Your task to perform on an android device: Show me the top rated dinnerware on Crate & Barrel Image 0: 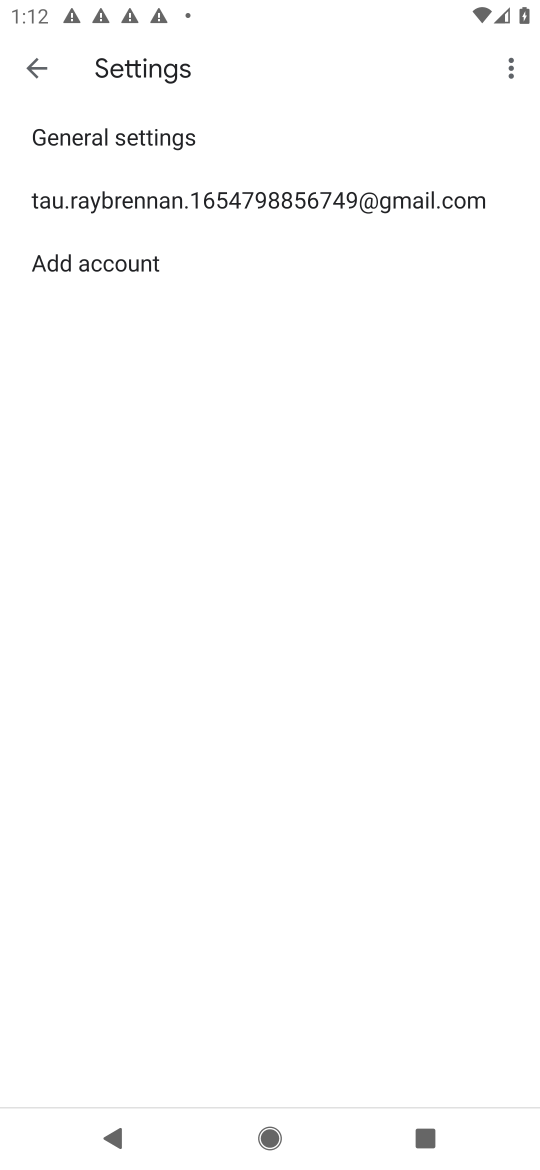
Step 0: click (368, 3)
Your task to perform on an android device: Show me the top rated dinnerware on Crate & Barrel Image 1: 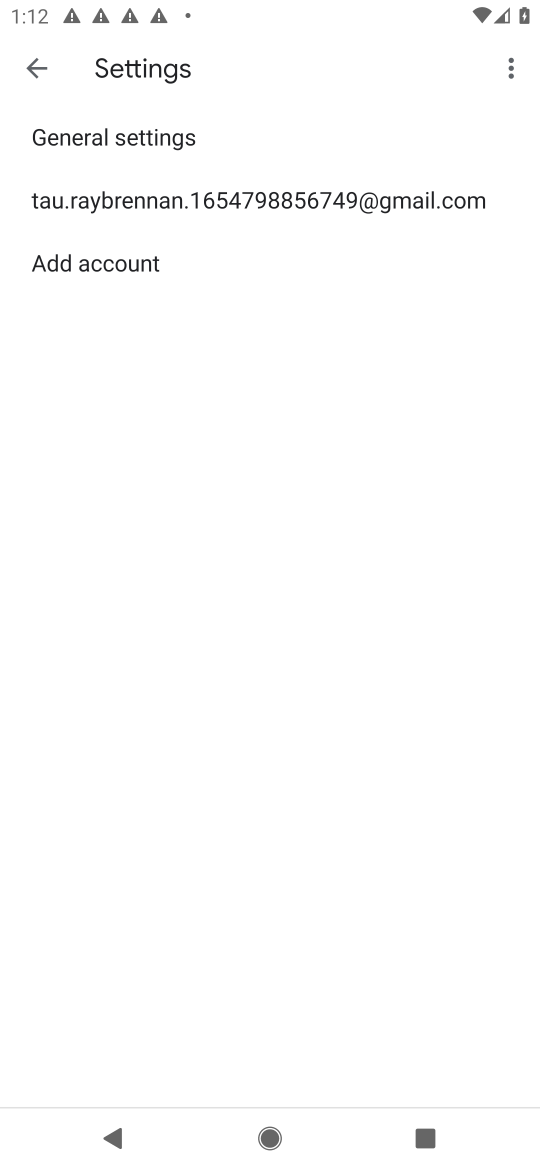
Step 1: press home button
Your task to perform on an android device: Show me the top rated dinnerware on Crate & Barrel Image 2: 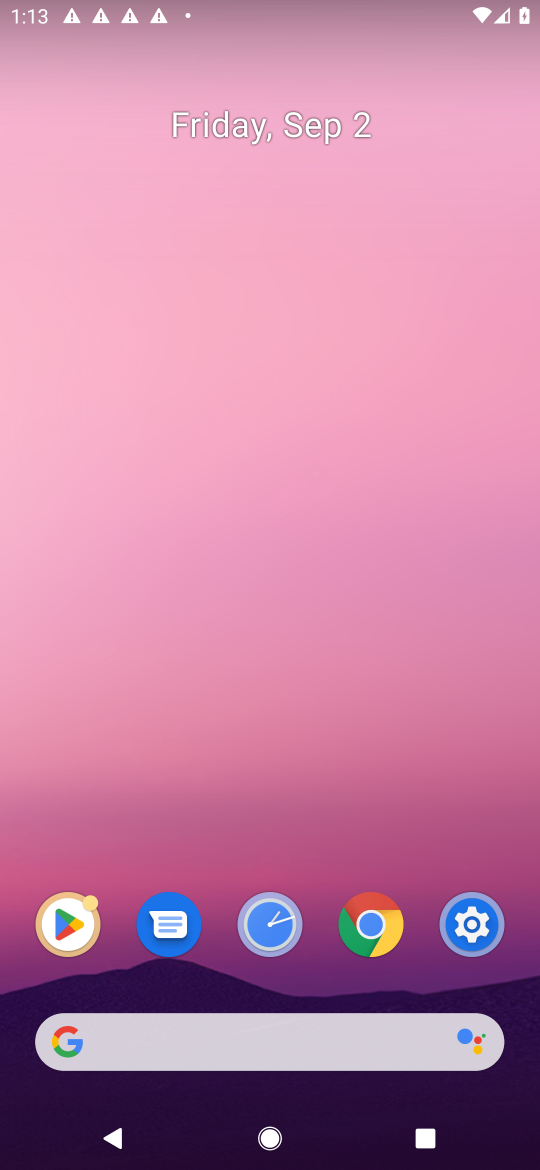
Step 2: click (294, 1039)
Your task to perform on an android device: Show me the top rated dinnerware on Crate & Barrel Image 3: 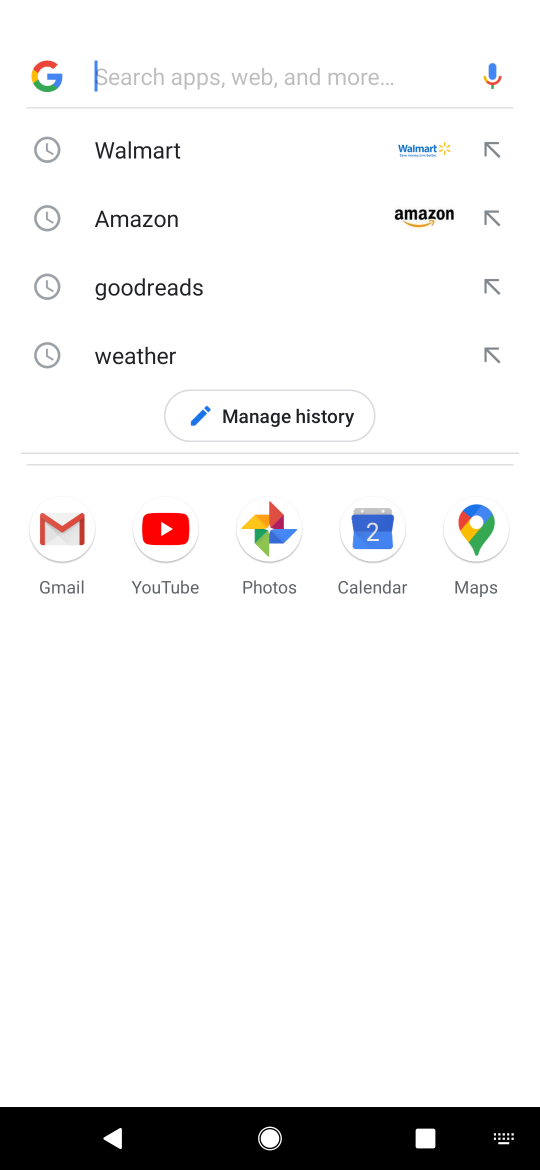
Step 3: type "Crate & Barrel"
Your task to perform on an android device: Show me the top rated dinnerware on Crate & Barrel Image 4: 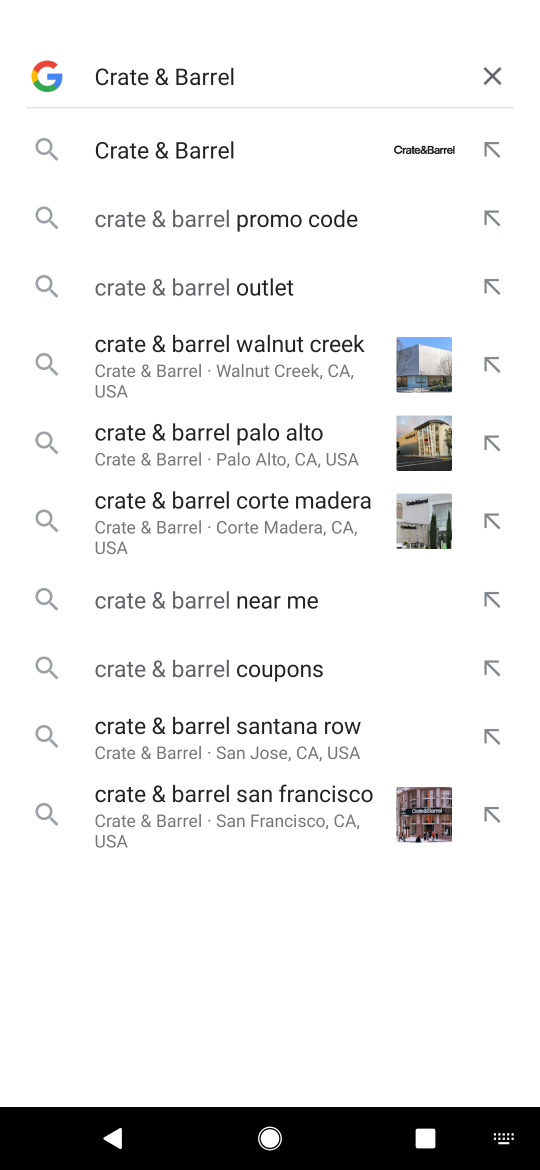
Step 4: type ""
Your task to perform on an android device: Show me the top rated dinnerware on Crate & Barrel Image 5: 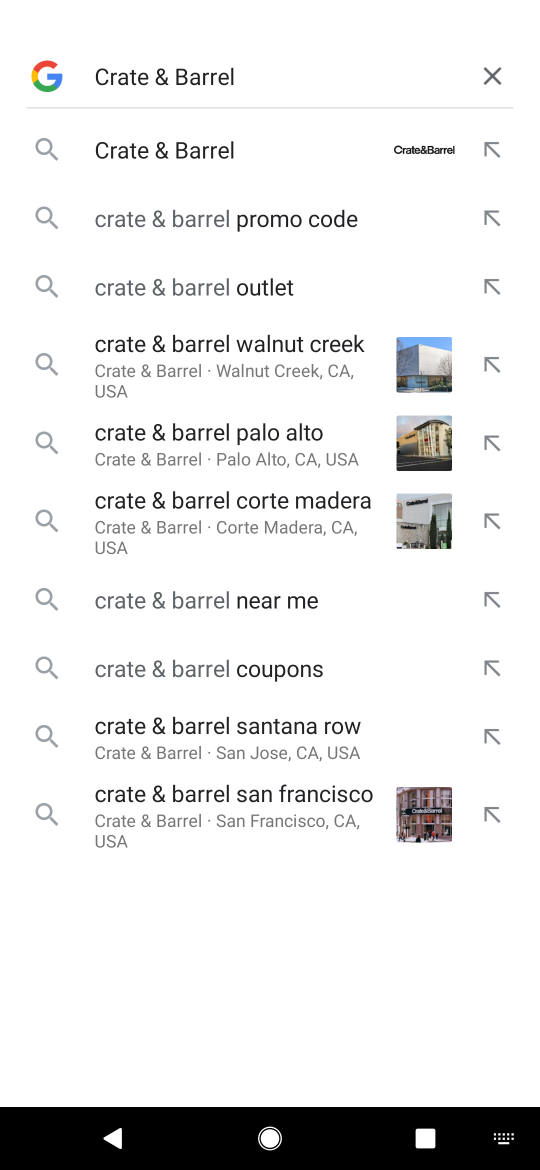
Step 5: click (182, 150)
Your task to perform on an android device: Show me the top rated dinnerware on Crate & Barrel Image 6: 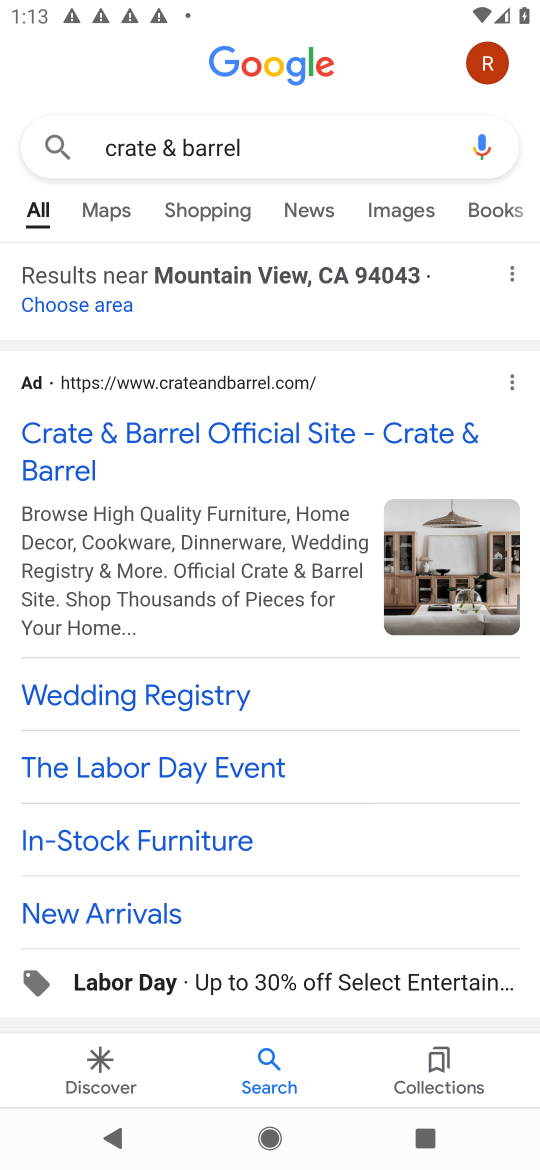
Step 6: drag from (249, 556) to (326, 319)
Your task to perform on an android device: Show me the top rated dinnerware on Crate & Barrel Image 7: 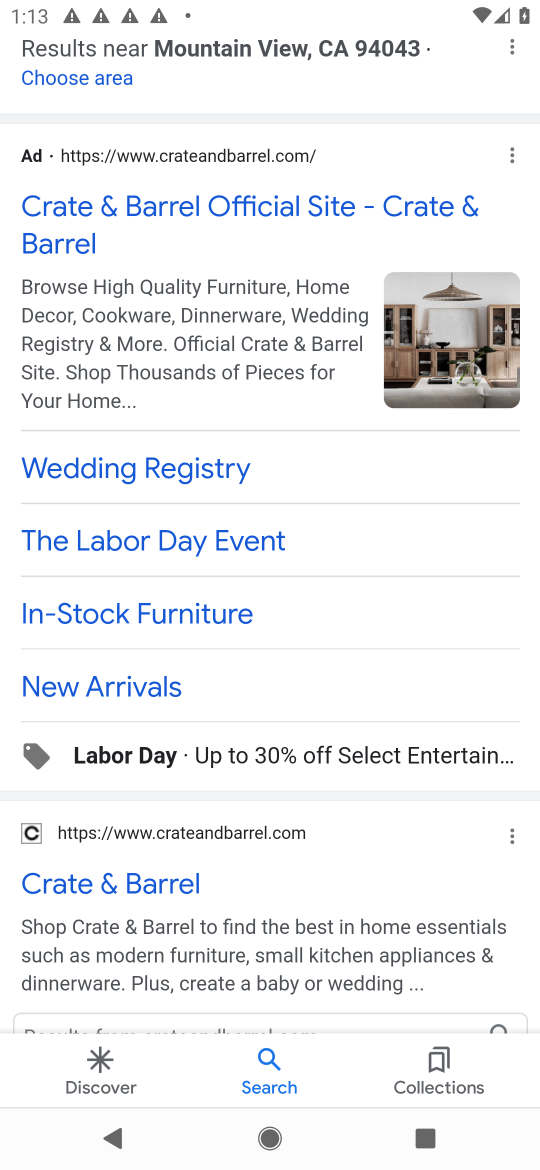
Step 7: click (176, 891)
Your task to perform on an android device: Show me the top rated dinnerware on Crate & Barrel Image 8: 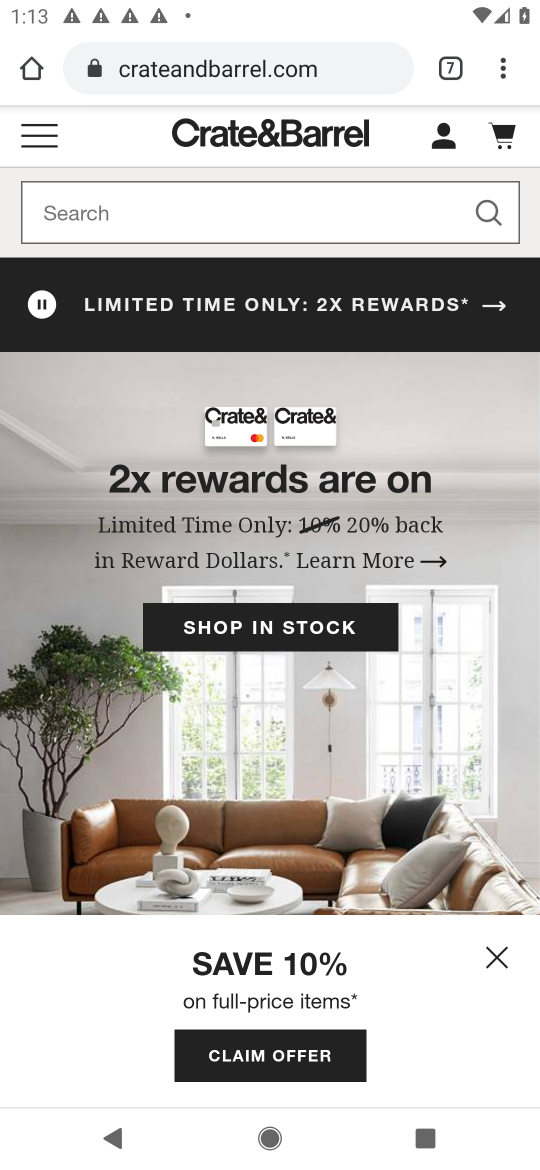
Step 8: click (238, 224)
Your task to perform on an android device: Show me the top rated dinnerware on Crate & Barrel Image 9: 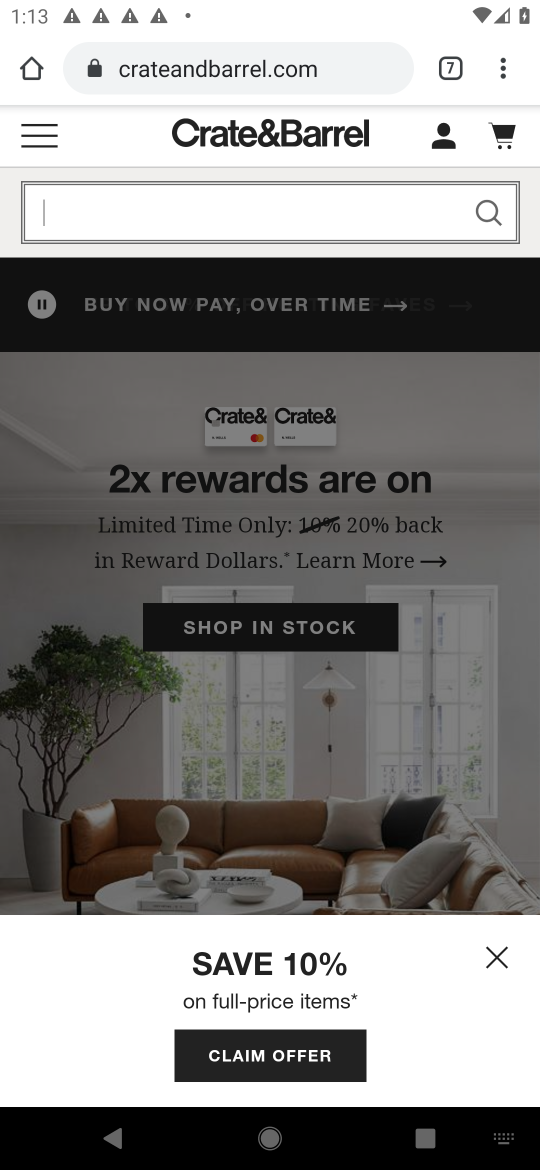
Step 9: type "dinnerware"
Your task to perform on an android device: Show me the top rated dinnerware on Crate & Barrel Image 10: 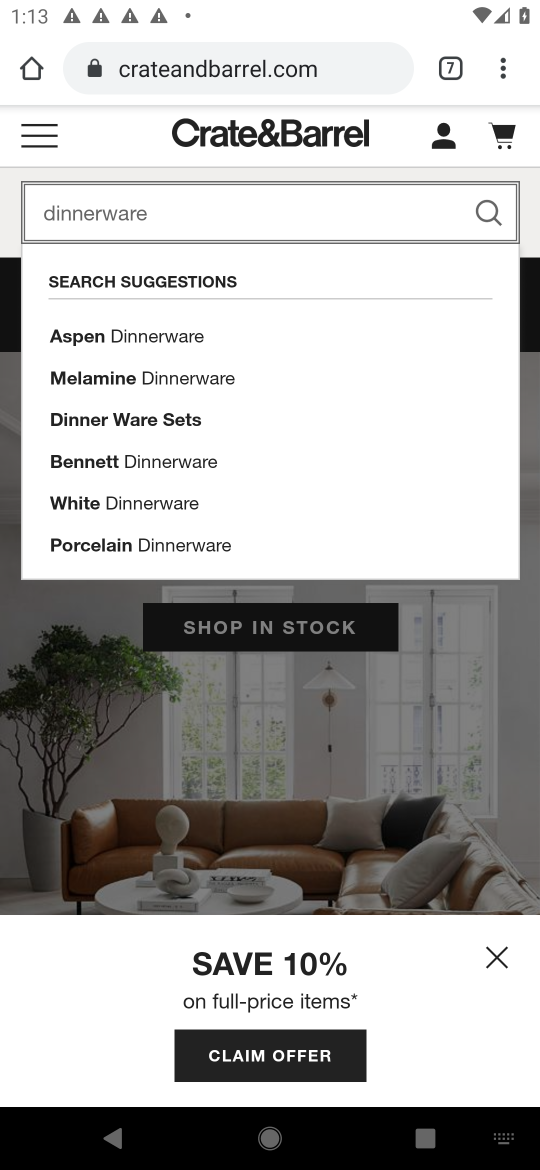
Step 10: click (477, 208)
Your task to perform on an android device: Show me the top rated dinnerware on Crate & Barrel Image 11: 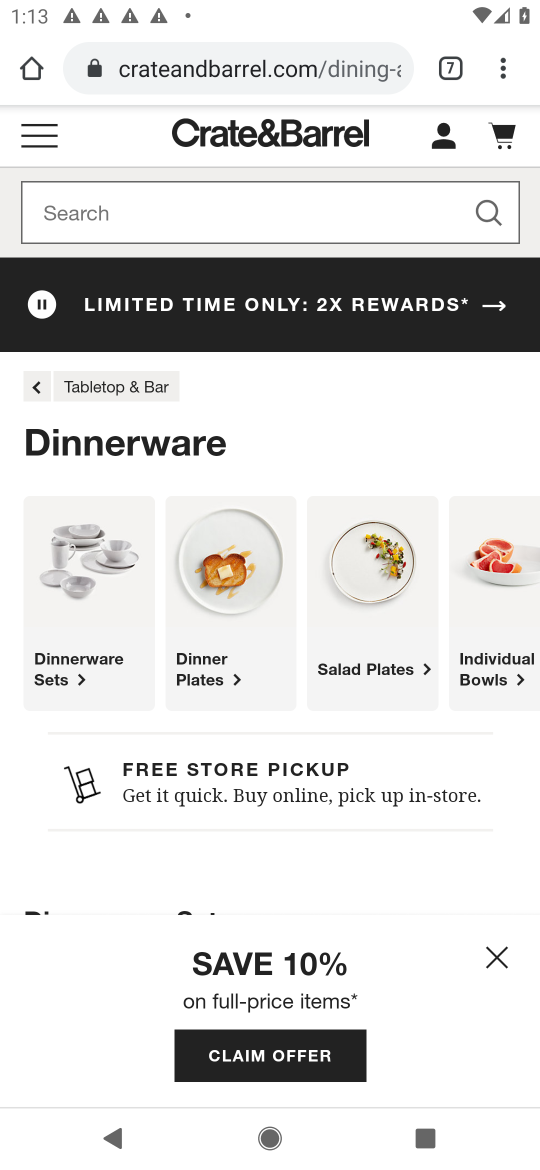
Step 11: task complete